Your task to perform on an android device: Go to ESPN.com Image 0: 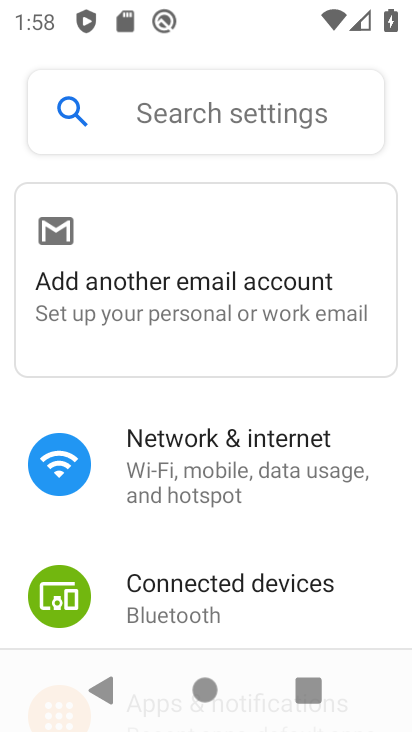
Step 0: press home button
Your task to perform on an android device: Go to ESPN.com Image 1: 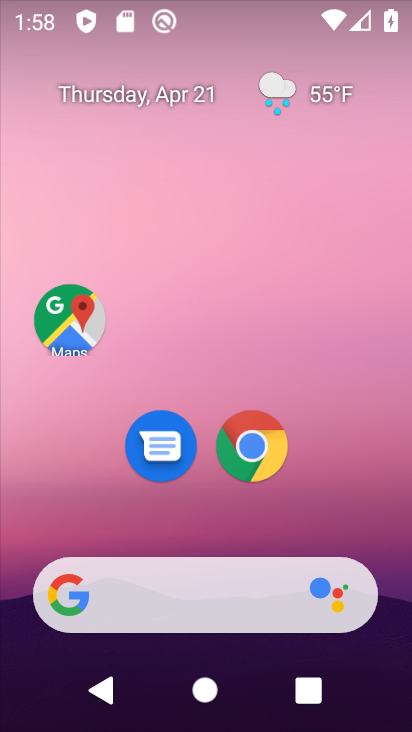
Step 1: click (254, 448)
Your task to perform on an android device: Go to ESPN.com Image 2: 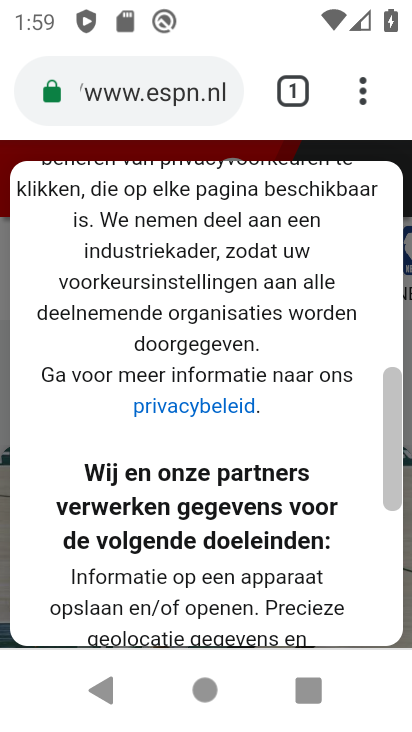
Step 2: drag from (172, 503) to (170, 271)
Your task to perform on an android device: Go to ESPN.com Image 3: 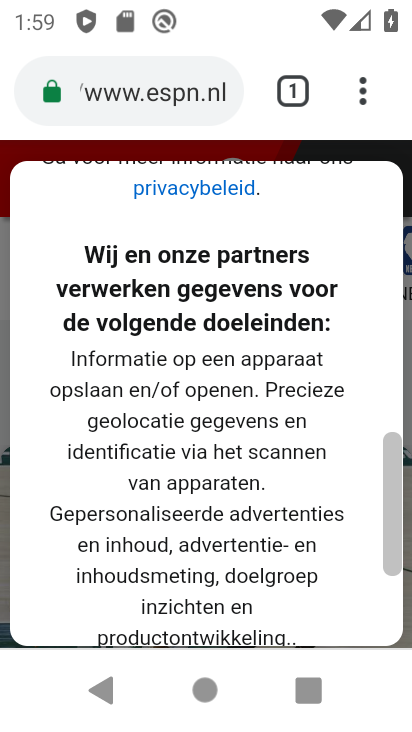
Step 3: drag from (208, 598) to (208, 237)
Your task to perform on an android device: Go to ESPN.com Image 4: 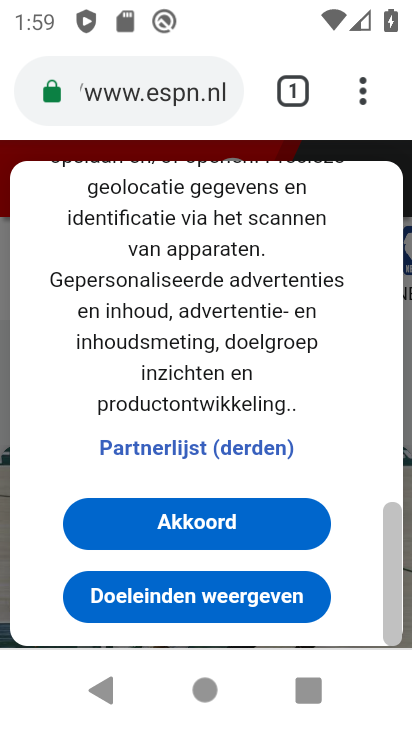
Step 4: drag from (362, 94) to (73, 185)
Your task to perform on an android device: Go to ESPN.com Image 5: 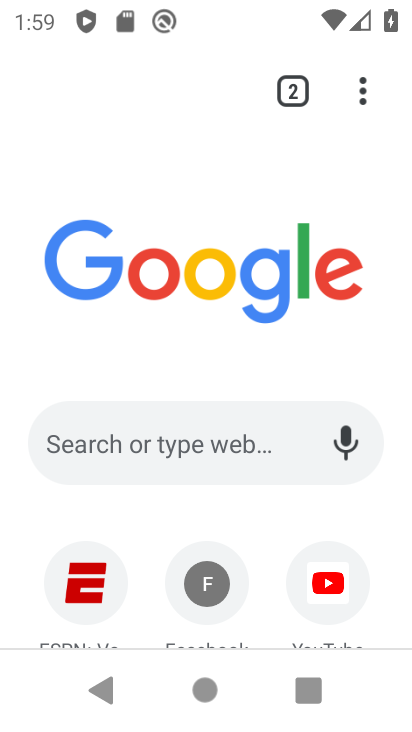
Step 5: click (236, 442)
Your task to perform on an android device: Go to ESPN.com Image 6: 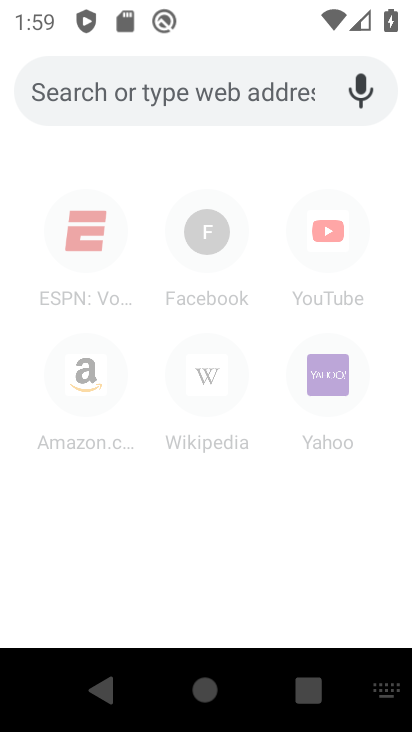
Step 6: type "ESPN.com"
Your task to perform on an android device: Go to ESPN.com Image 7: 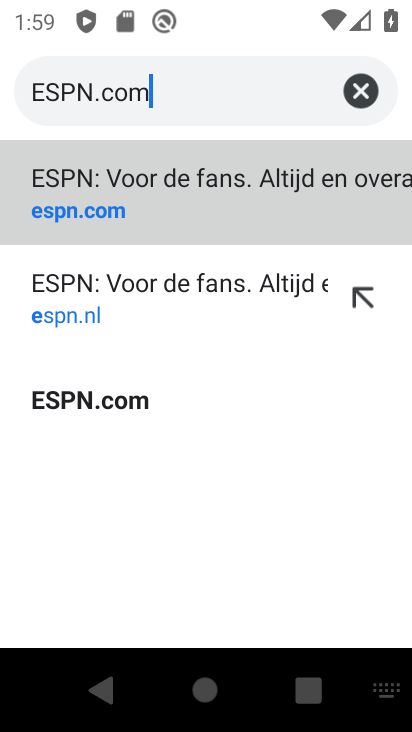
Step 7: type ""
Your task to perform on an android device: Go to ESPN.com Image 8: 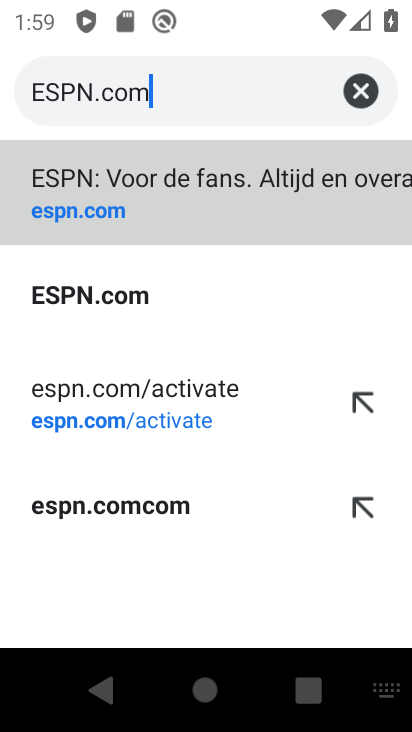
Step 8: click (134, 180)
Your task to perform on an android device: Go to ESPN.com Image 9: 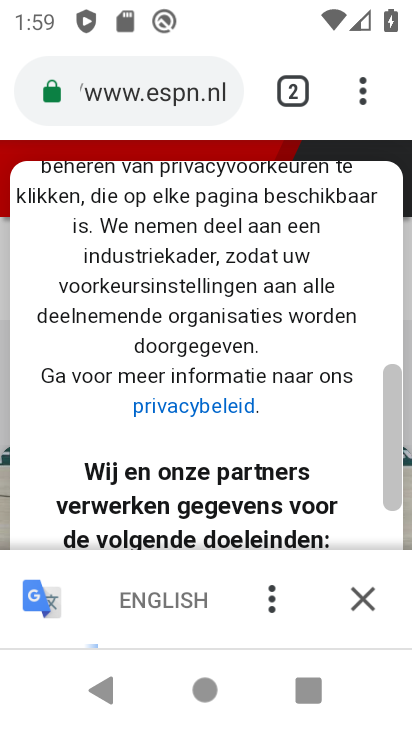
Step 9: task complete